Your task to perform on an android device: check data usage Image 0: 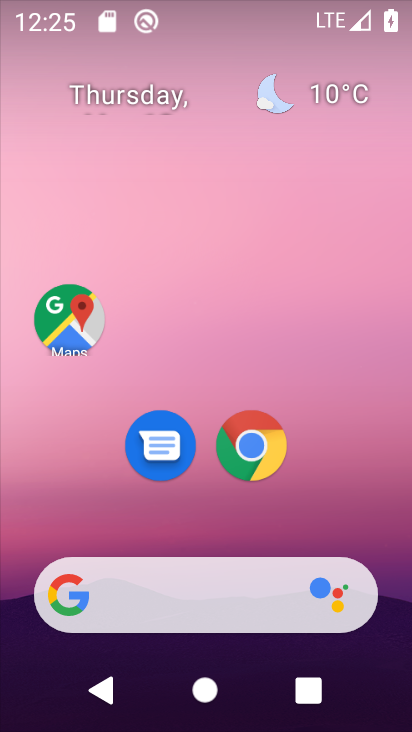
Step 0: drag from (209, 509) to (236, 1)
Your task to perform on an android device: check data usage Image 1: 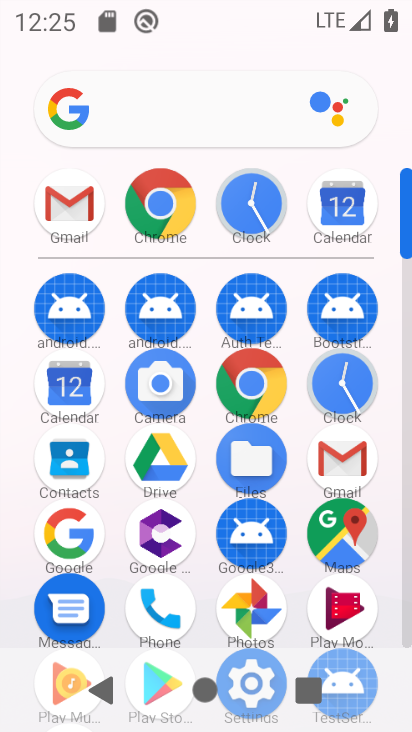
Step 1: drag from (274, 563) to (296, 174)
Your task to perform on an android device: check data usage Image 2: 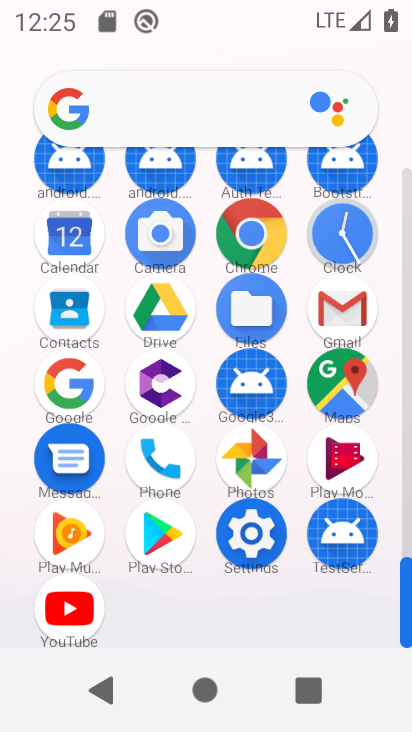
Step 2: click (247, 533)
Your task to perform on an android device: check data usage Image 3: 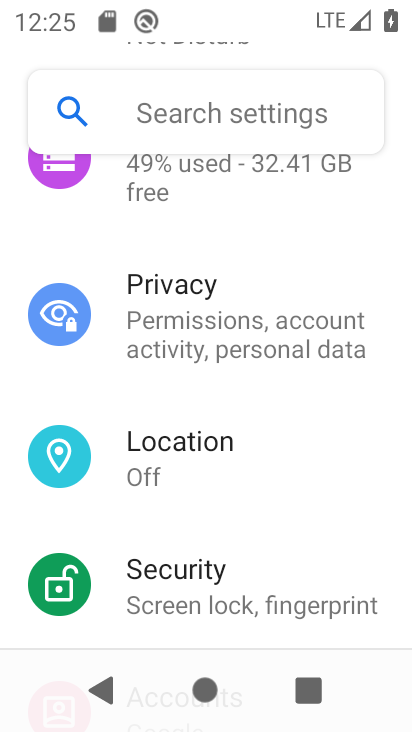
Step 3: drag from (195, 206) to (190, 677)
Your task to perform on an android device: check data usage Image 4: 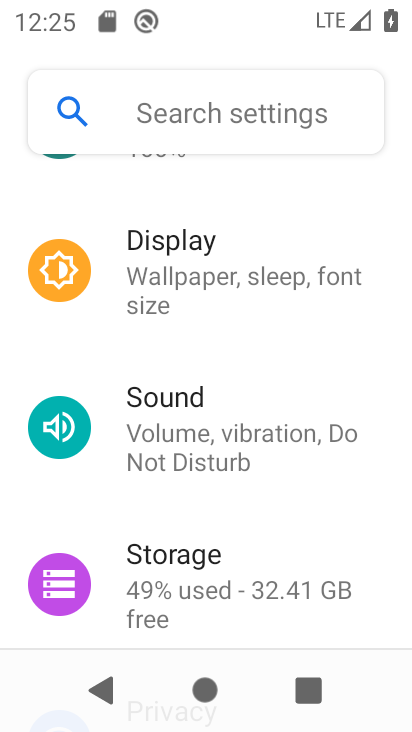
Step 4: drag from (220, 249) to (192, 660)
Your task to perform on an android device: check data usage Image 5: 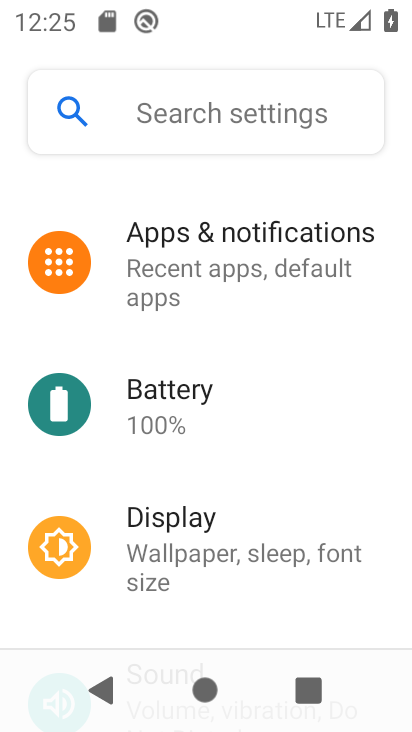
Step 5: drag from (170, 247) to (170, 683)
Your task to perform on an android device: check data usage Image 6: 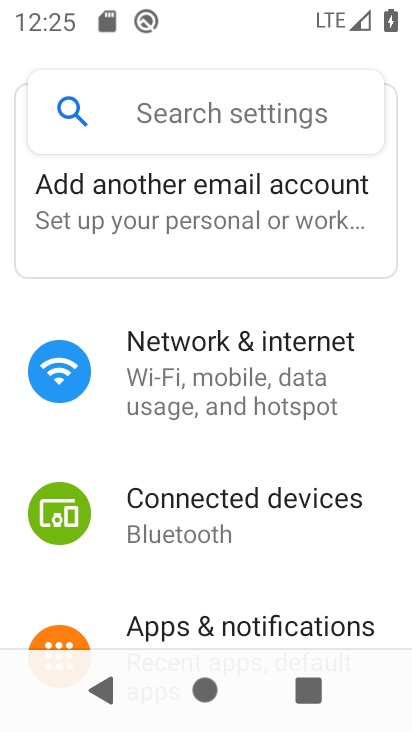
Step 6: click (219, 384)
Your task to perform on an android device: check data usage Image 7: 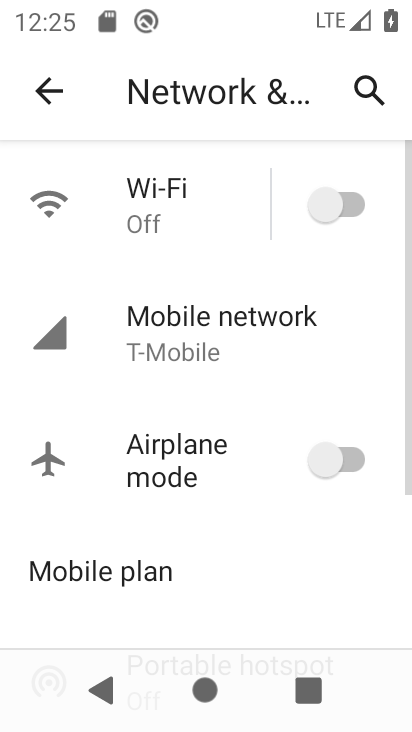
Step 7: drag from (196, 546) to (223, 93)
Your task to perform on an android device: check data usage Image 8: 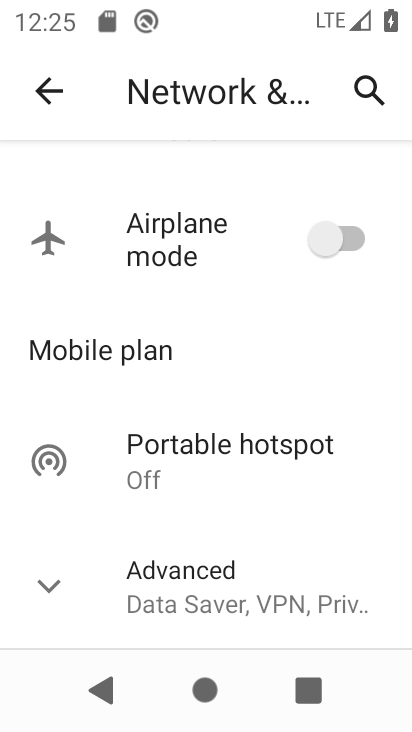
Step 8: click (152, 577)
Your task to perform on an android device: check data usage Image 9: 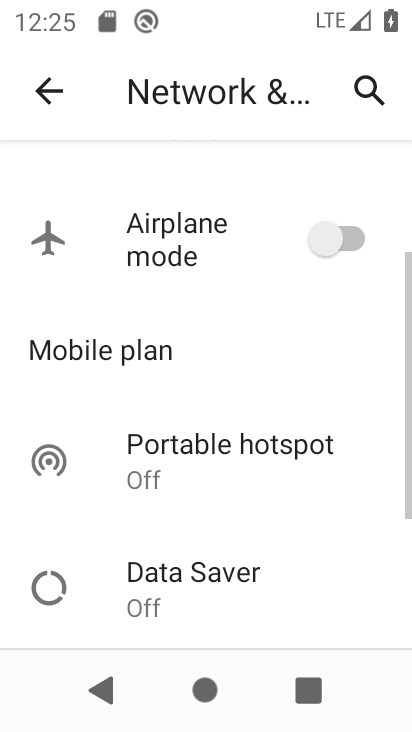
Step 9: drag from (173, 574) to (171, 731)
Your task to perform on an android device: check data usage Image 10: 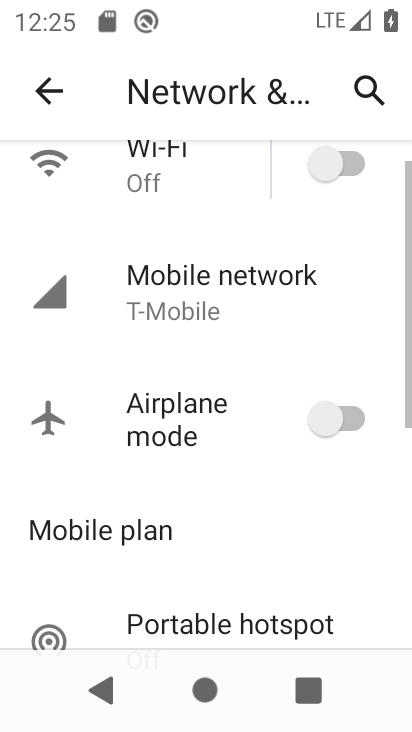
Step 10: click (186, 314)
Your task to perform on an android device: check data usage Image 11: 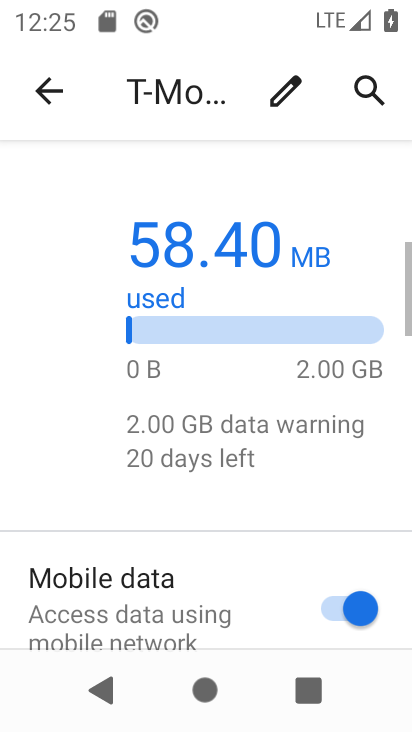
Step 11: drag from (139, 624) to (250, 13)
Your task to perform on an android device: check data usage Image 12: 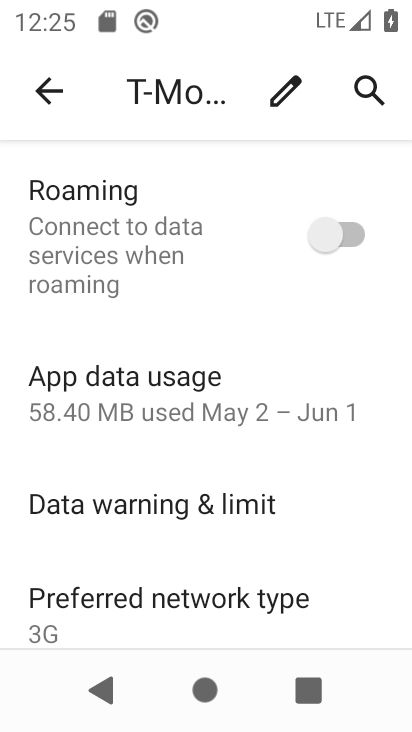
Step 12: click (114, 361)
Your task to perform on an android device: check data usage Image 13: 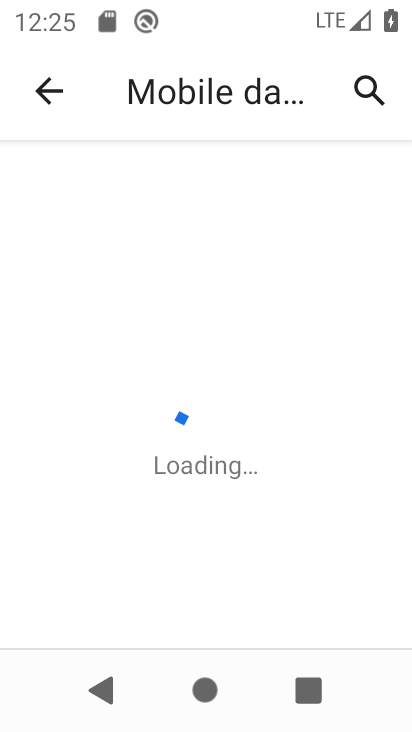
Step 13: task complete